Your task to perform on an android device: Open settings on Google Maps Image 0: 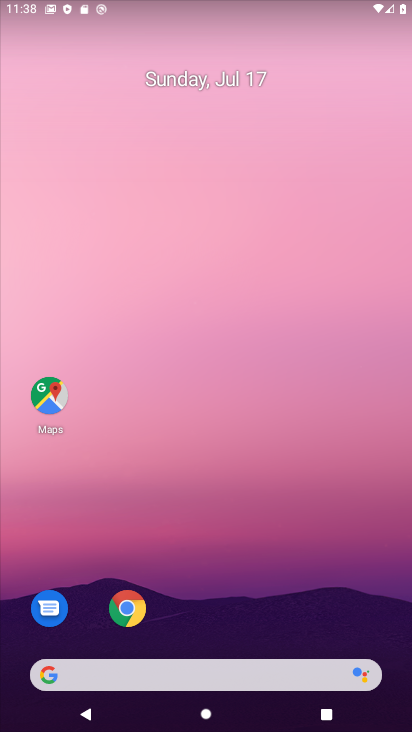
Step 0: click (288, 169)
Your task to perform on an android device: Open settings on Google Maps Image 1: 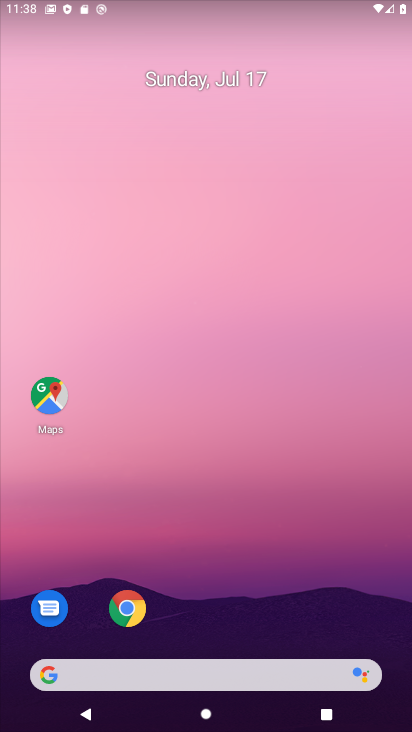
Step 1: drag from (219, 658) to (315, 148)
Your task to perform on an android device: Open settings on Google Maps Image 2: 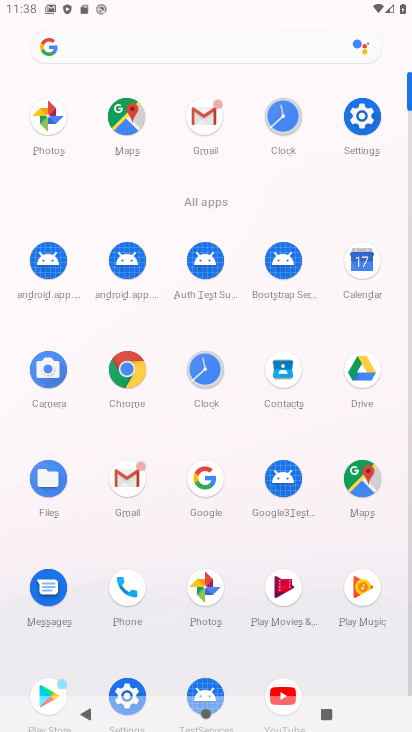
Step 2: click (368, 471)
Your task to perform on an android device: Open settings on Google Maps Image 3: 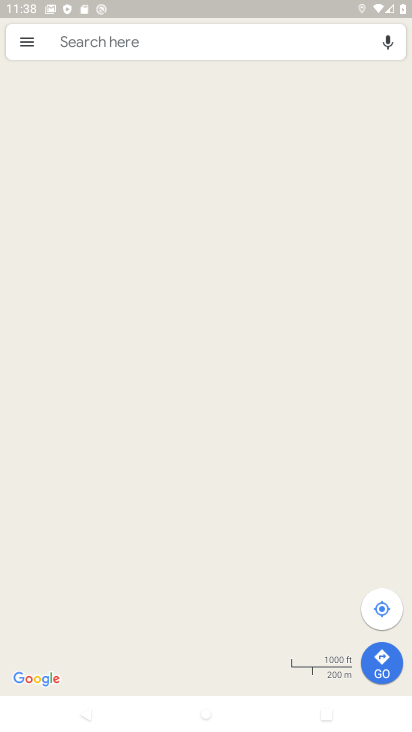
Step 3: click (32, 46)
Your task to perform on an android device: Open settings on Google Maps Image 4: 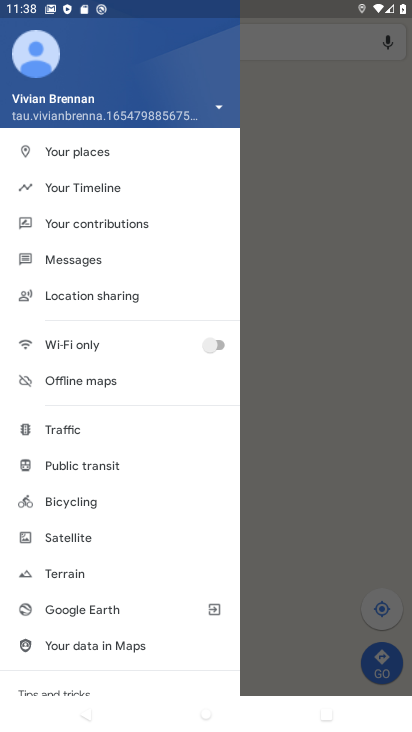
Step 4: drag from (129, 642) to (175, 267)
Your task to perform on an android device: Open settings on Google Maps Image 5: 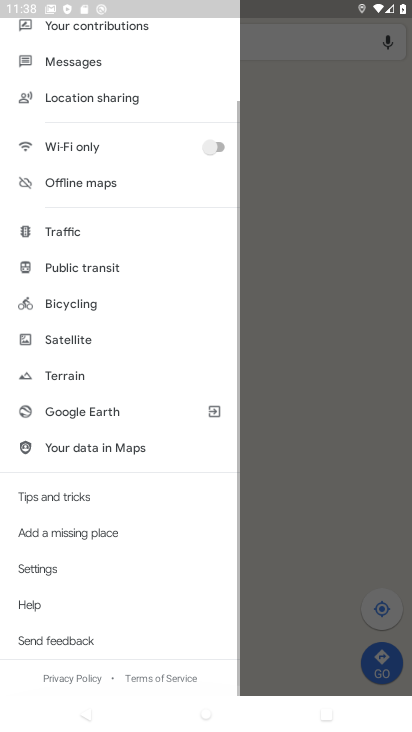
Step 5: click (77, 576)
Your task to perform on an android device: Open settings on Google Maps Image 6: 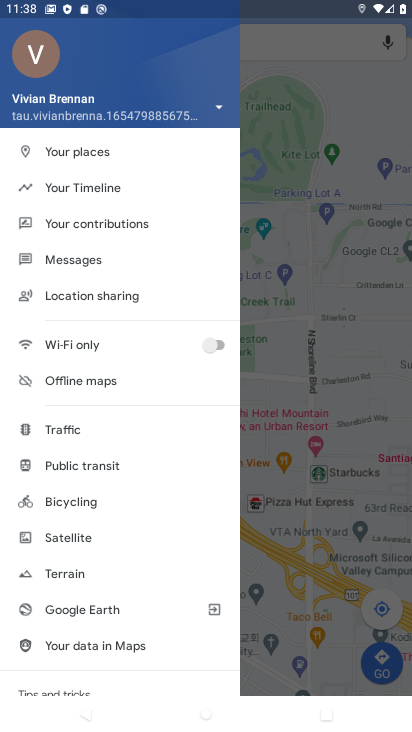
Step 6: drag from (58, 646) to (152, 360)
Your task to perform on an android device: Open settings on Google Maps Image 7: 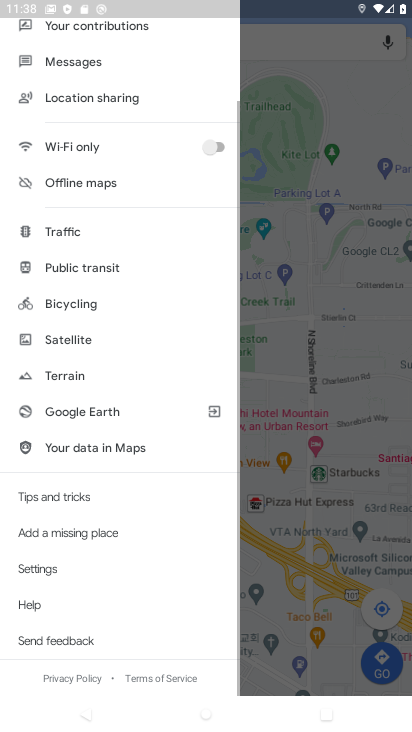
Step 7: click (60, 572)
Your task to perform on an android device: Open settings on Google Maps Image 8: 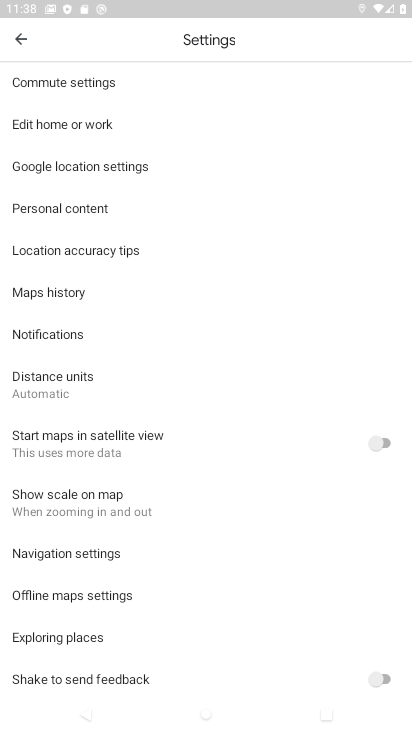
Step 8: task complete